Your task to perform on an android device: Go to calendar. Show me events next week Image 0: 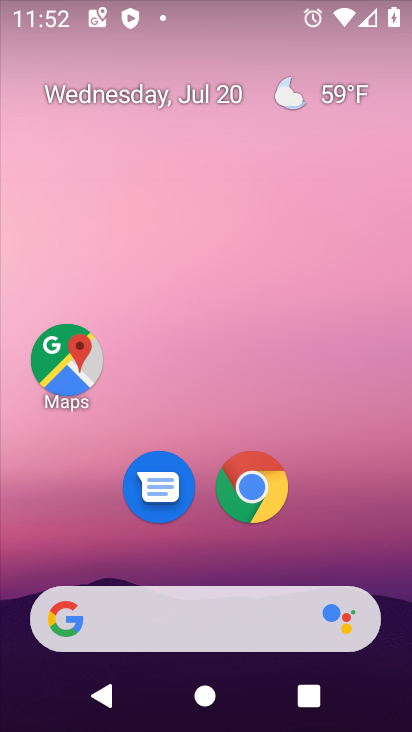
Step 0: drag from (365, 531) to (378, 135)
Your task to perform on an android device: Go to calendar. Show me events next week Image 1: 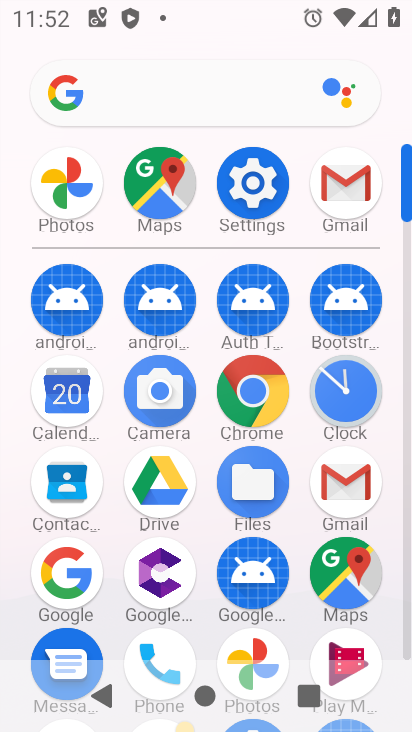
Step 1: click (76, 398)
Your task to perform on an android device: Go to calendar. Show me events next week Image 2: 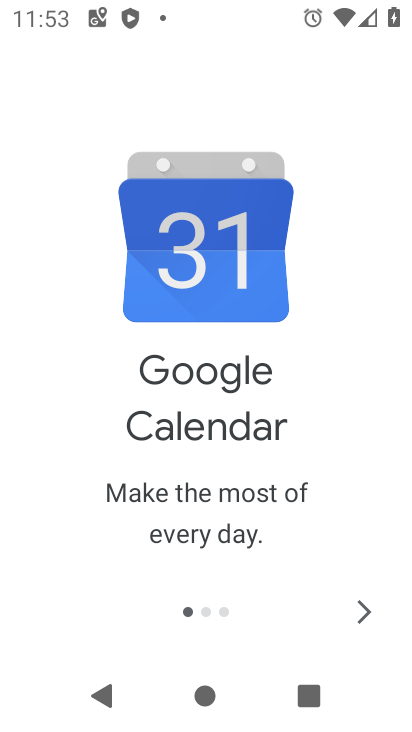
Step 2: click (361, 610)
Your task to perform on an android device: Go to calendar. Show me events next week Image 3: 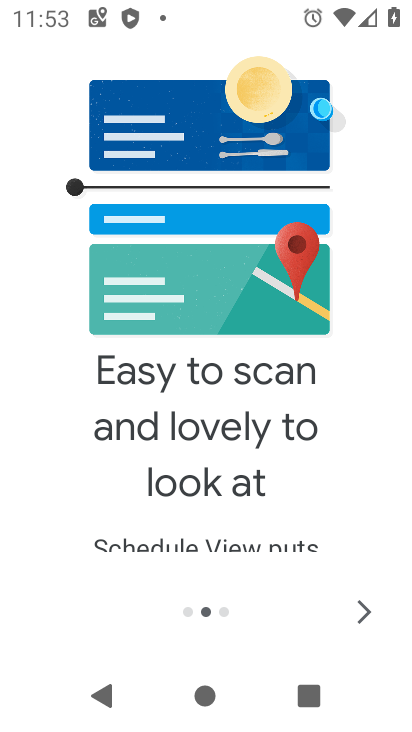
Step 3: click (361, 610)
Your task to perform on an android device: Go to calendar. Show me events next week Image 4: 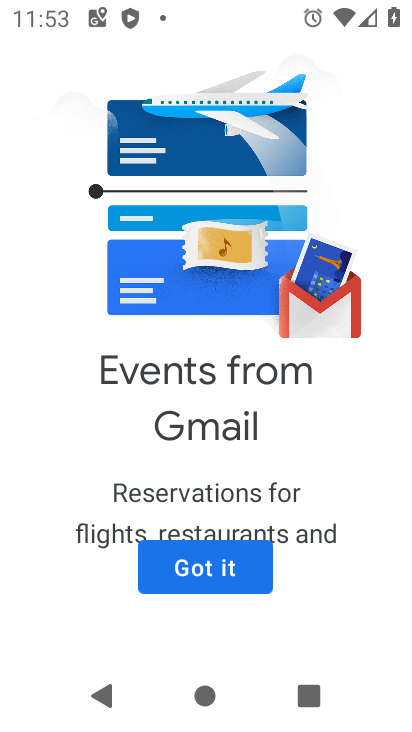
Step 4: click (228, 575)
Your task to perform on an android device: Go to calendar. Show me events next week Image 5: 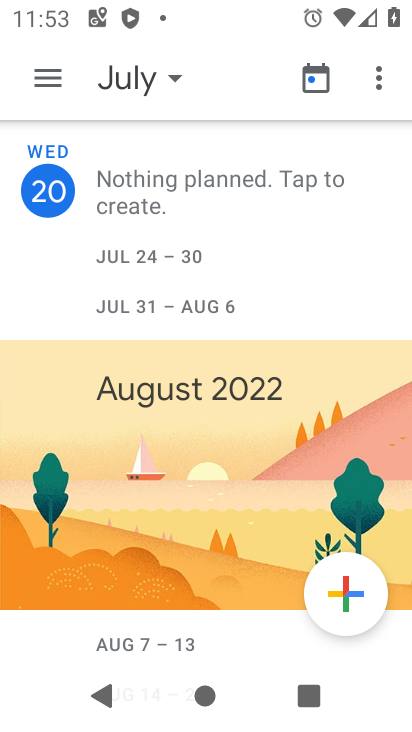
Step 5: click (175, 87)
Your task to perform on an android device: Go to calendar. Show me events next week Image 6: 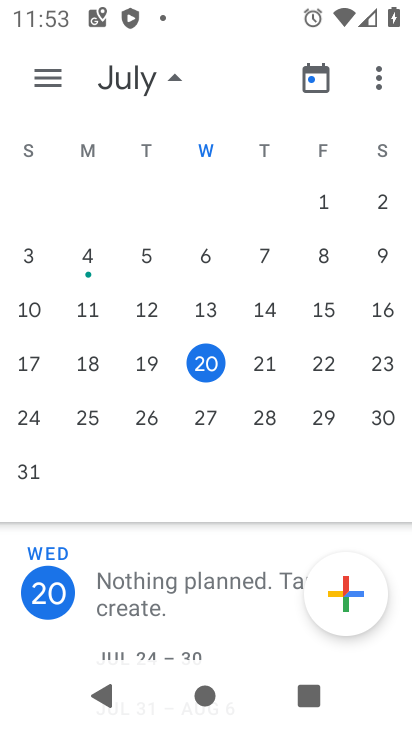
Step 6: click (102, 428)
Your task to perform on an android device: Go to calendar. Show me events next week Image 7: 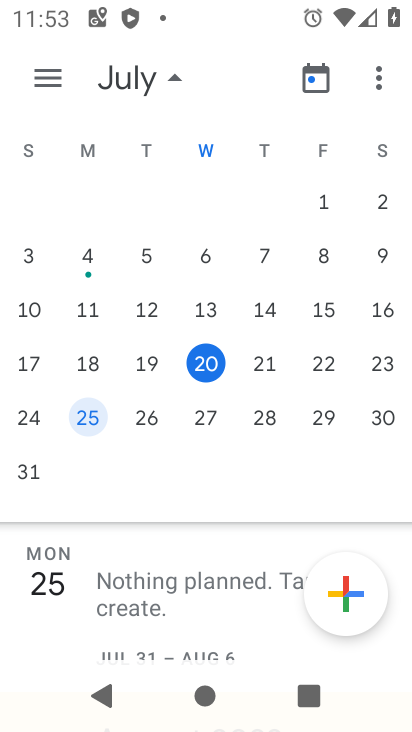
Step 7: task complete